Your task to perform on an android device: Go to ESPN.com Image 0: 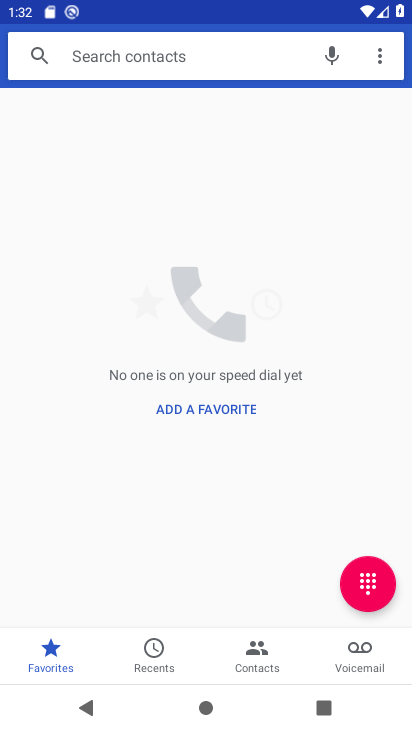
Step 0: press home button
Your task to perform on an android device: Go to ESPN.com Image 1: 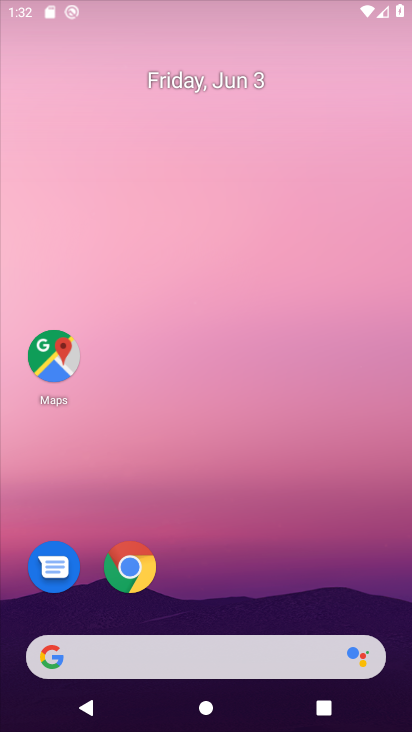
Step 1: drag from (201, 618) to (212, 295)
Your task to perform on an android device: Go to ESPN.com Image 2: 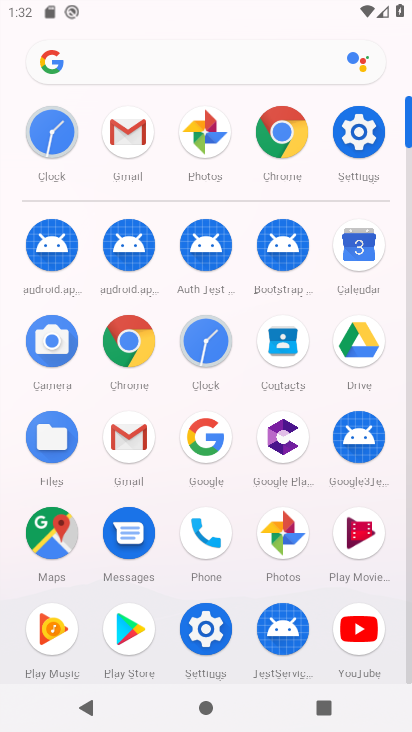
Step 2: click (277, 131)
Your task to perform on an android device: Go to ESPN.com Image 3: 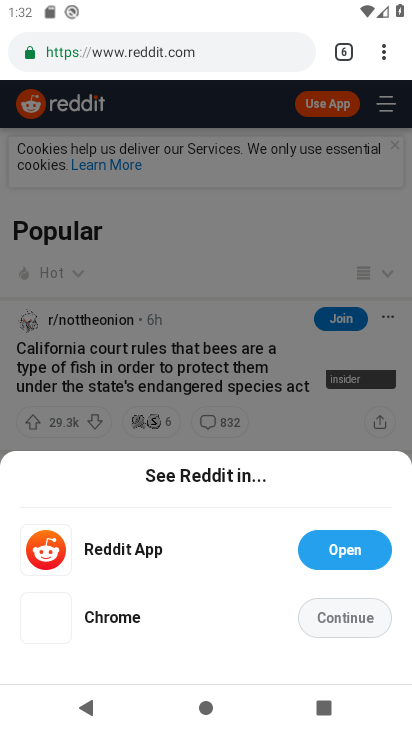
Step 3: click (382, 49)
Your task to perform on an android device: Go to ESPN.com Image 4: 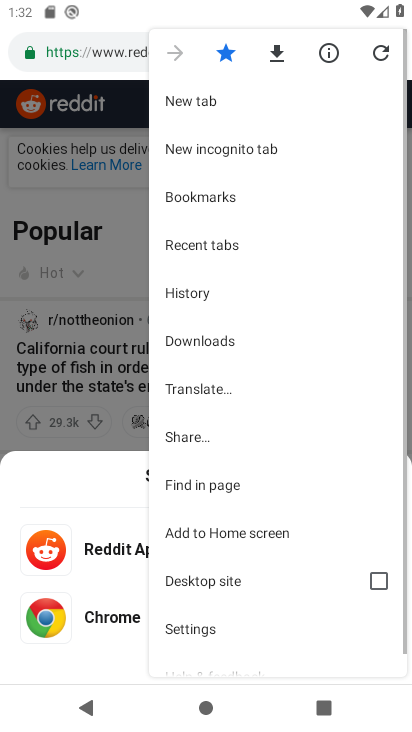
Step 4: click (186, 99)
Your task to perform on an android device: Go to ESPN.com Image 5: 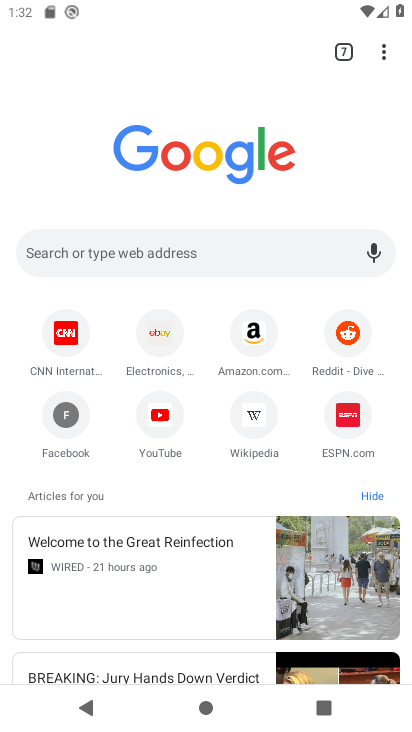
Step 5: click (180, 243)
Your task to perform on an android device: Go to ESPN.com Image 6: 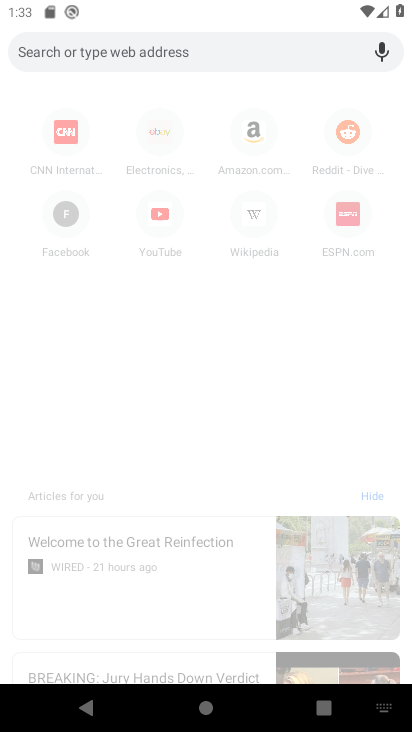
Step 6: type "ESPN.com"
Your task to perform on an android device: Go to ESPN.com Image 7: 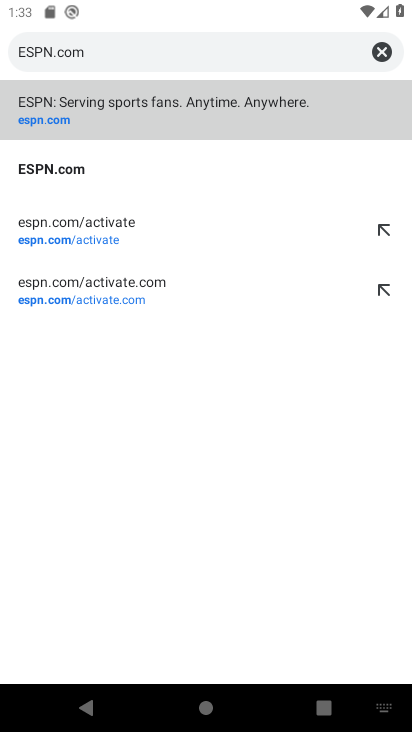
Step 7: click (76, 168)
Your task to perform on an android device: Go to ESPN.com Image 8: 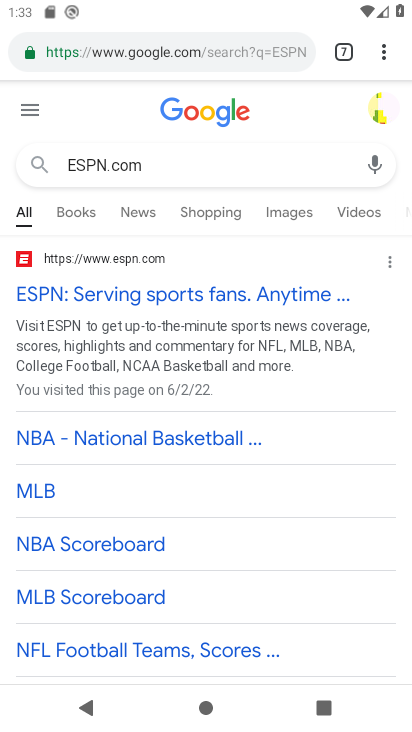
Step 8: task complete